Your task to perform on an android device: set the stopwatch Image 0: 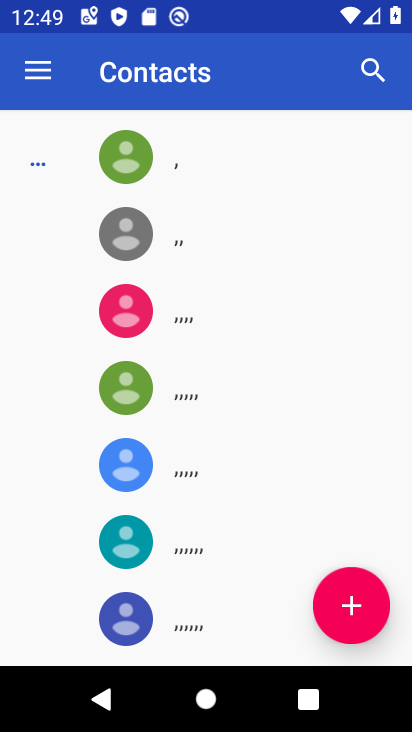
Step 0: press home button
Your task to perform on an android device: set the stopwatch Image 1: 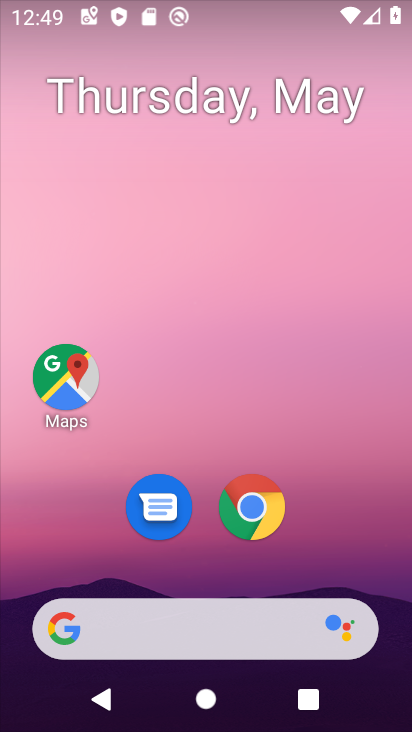
Step 1: drag from (250, 571) to (252, 126)
Your task to perform on an android device: set the stopwatch Image 2: 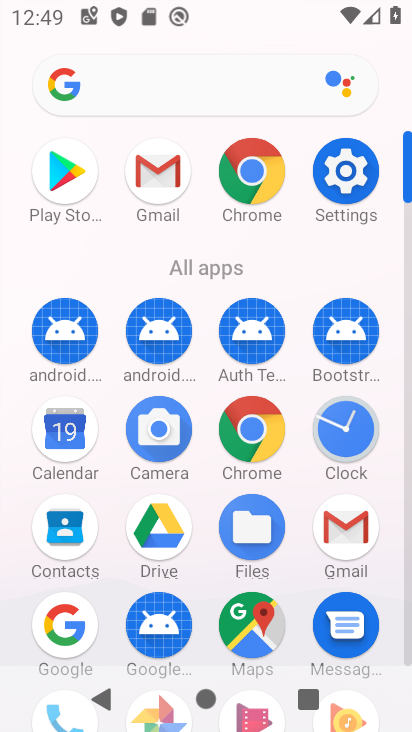
Step 2: click (354, 451)
Your task to perform on an android device: set the stopwatch Image 3: 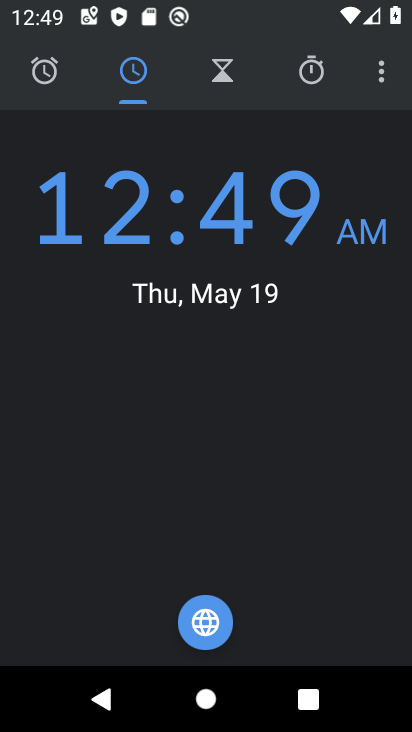
Step 3: click (318, 83)
Your task to perform on an android device: set the stopwatch Image 4: 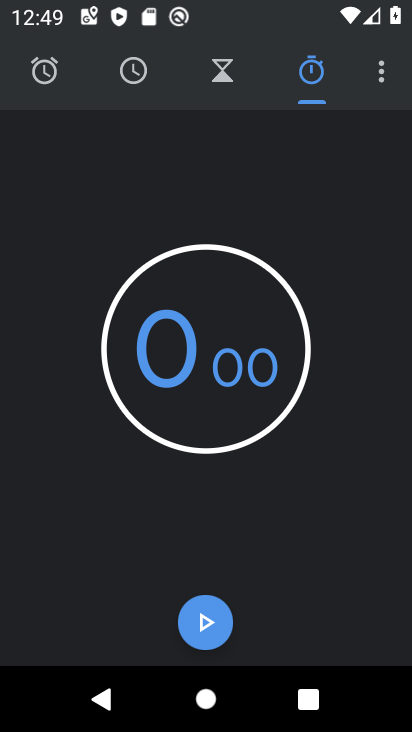
Step 4: click (204, 633)
Your task to perform on an android device: set the stopwatch Image 5: 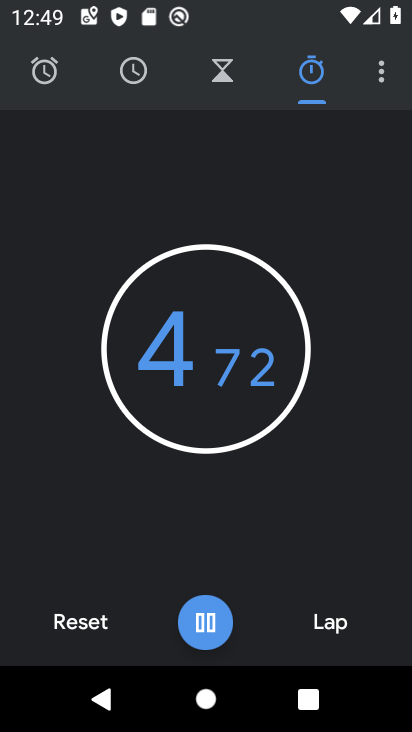
Step 5: click (210, 627)
Your task to perform on an android device: set the stopwatch Image 6: 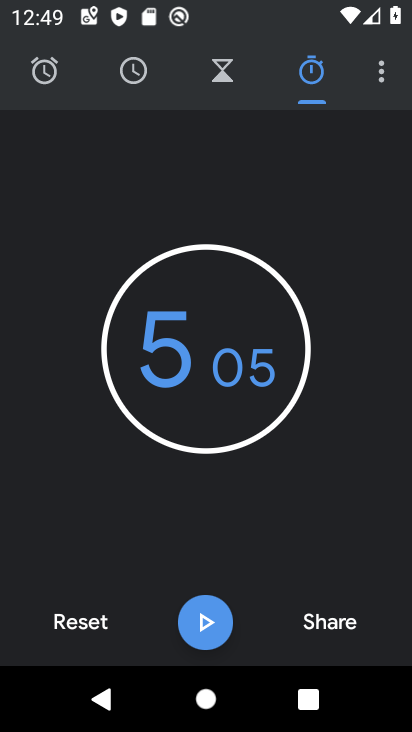
Step 6: task complete